Your task to perform on an android device: visit the assistant section in the google photos Image 0: 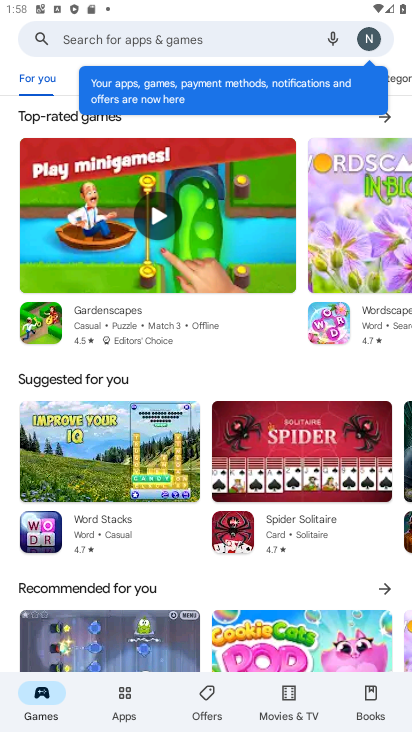
Step 0: press home button
Your task to perform on an android device: visit the assistant section in the google photos Image 1: 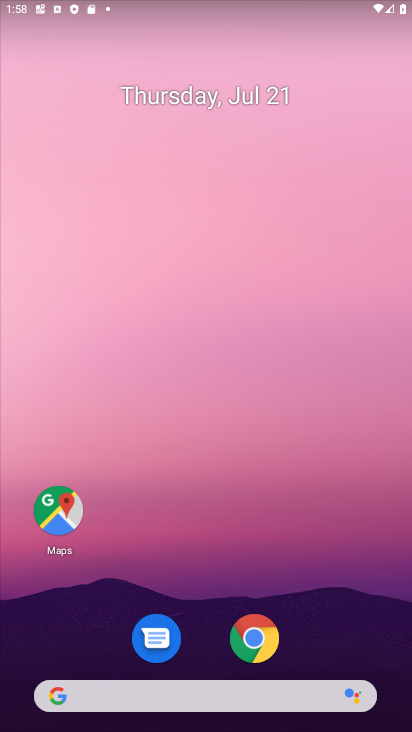
Step 1: drag from (203, 651) to (136, 154)
Your task to perform on an android device: visit the assistant section in the google photos Image 2: 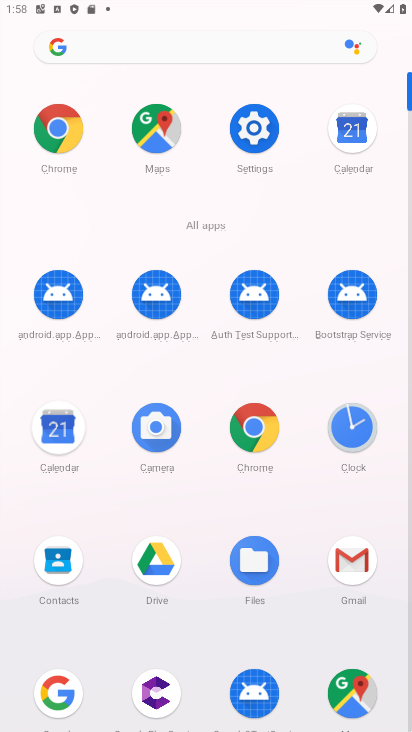
Step 2: drag from (221, 656) to (340, 91)
Your task to perform on an android device: visit the assistant section in the google photos Image 3: 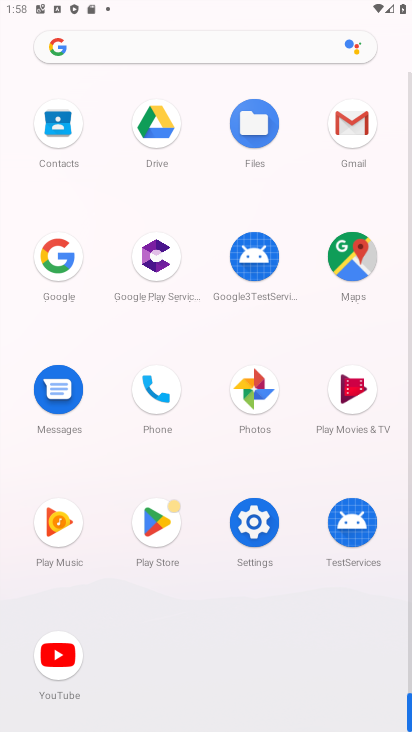
Step 3: click (234, 390)
Your task to perform on an android device: visit the assistant section in the google photos Image 4: 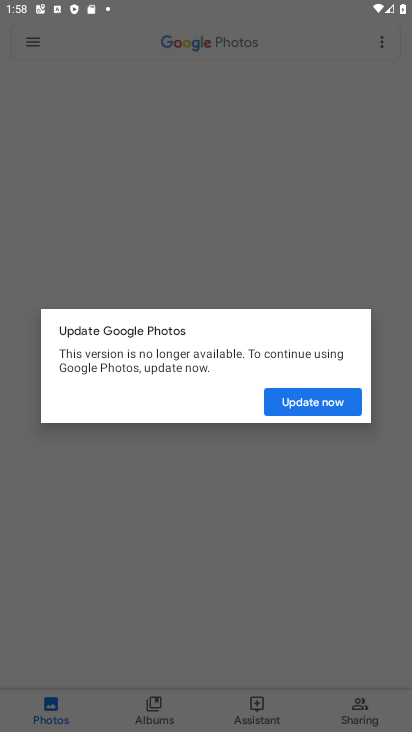
Step 4: click (301, 400)
Your task to perform on an android device: visit the assistant section in the google photos Image 5: 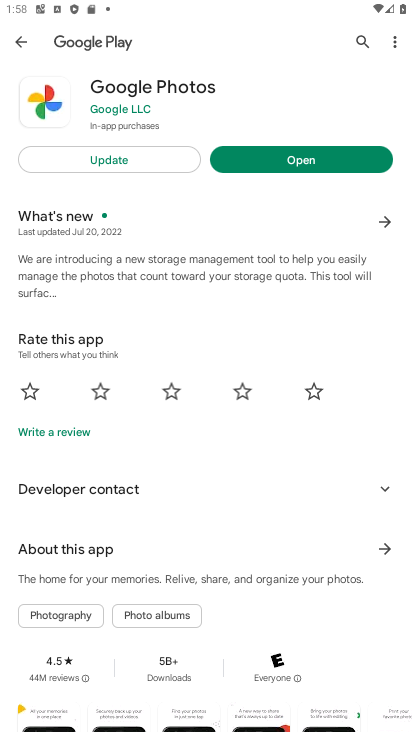
Step 5: click (113, 158)
Your task to perform on an android device: visit the assistant section in the google photos Image 6: 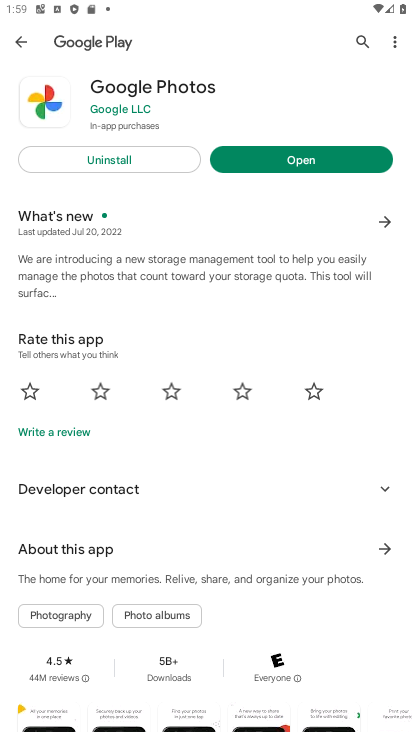
Step 6: click (285, 167)
Your task to perform on an android device: visit the assistant section in the google photos Image 7: 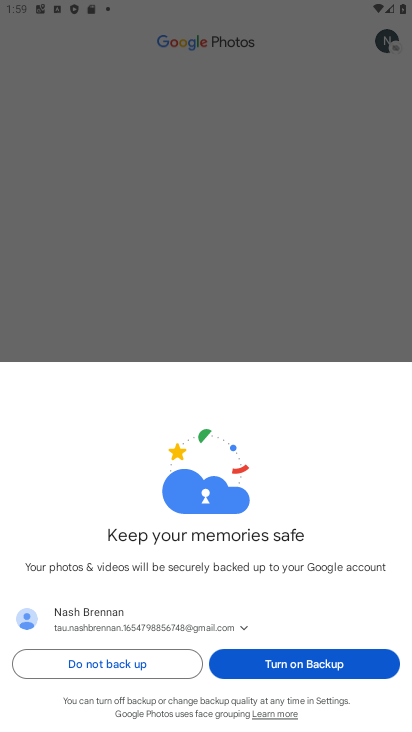
Step 7: click (275, 672)
Your task to perform on an android device: visit the assistant section in the google photos Image 8: 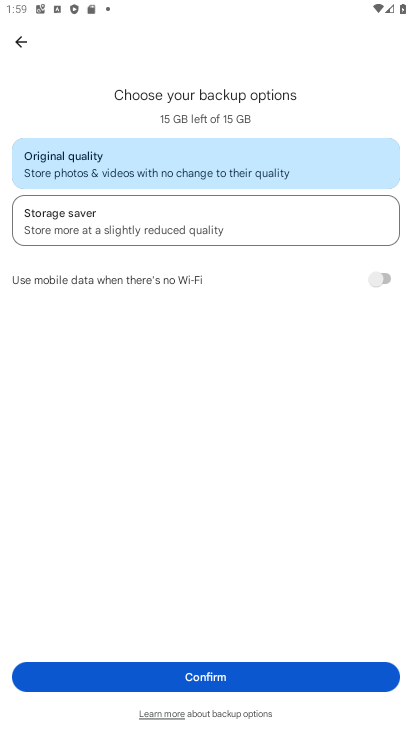
Step 8: click (275, 672)
Your task to perform on an android device: visit the assistant section in the google photos Image 9: 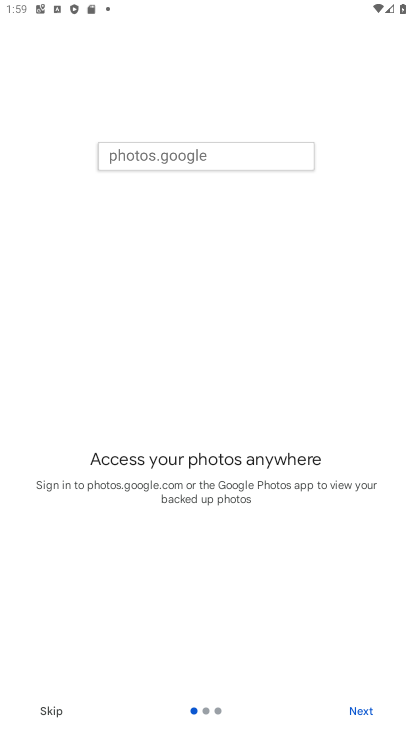
Step 9: click (357, 713)
Your task to perform on an android device: visit the assistant section in the google photos Image 10: 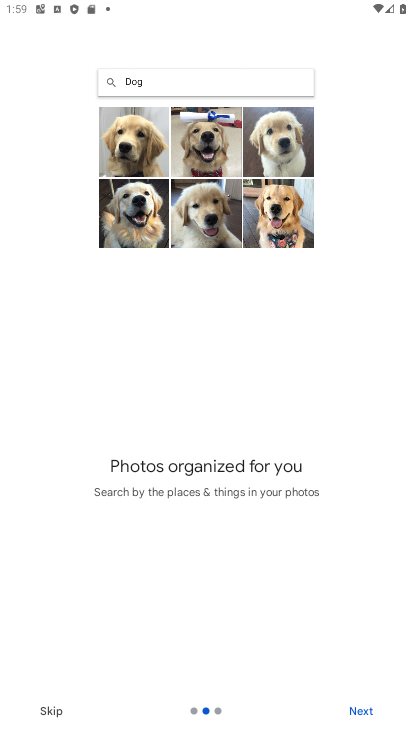
Step 10: click (357, 713)
Your task to perform on an android device: visit the assistant section in the google photos Image 11: 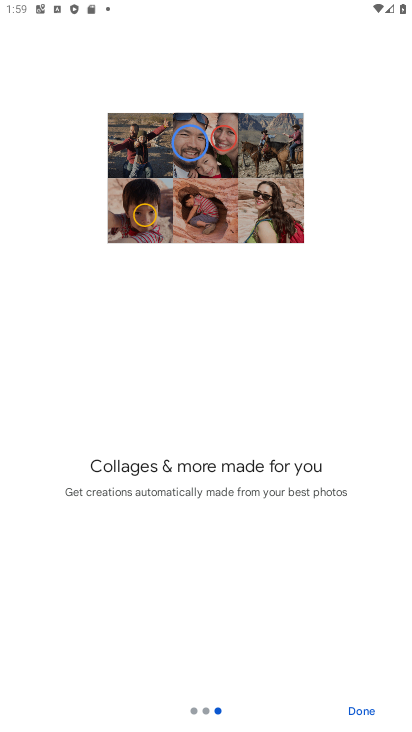
Step 11: click (362, 707)
Your task to perform on an android device: visit the assistant section in the google photos Image 12: 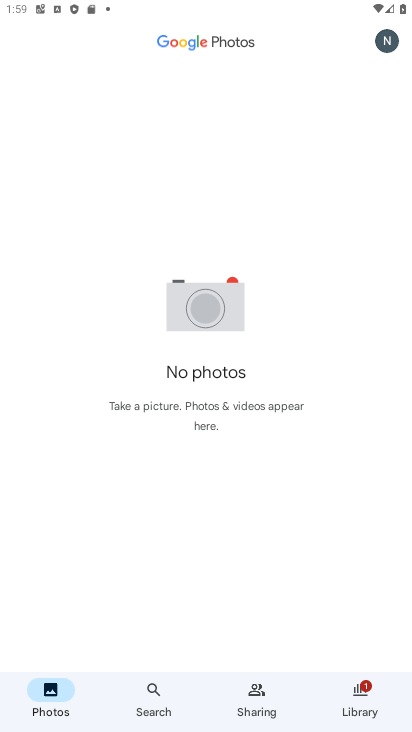
Step 12: task complete